Your task to perform on an android device: Open Google Maps Image 0: 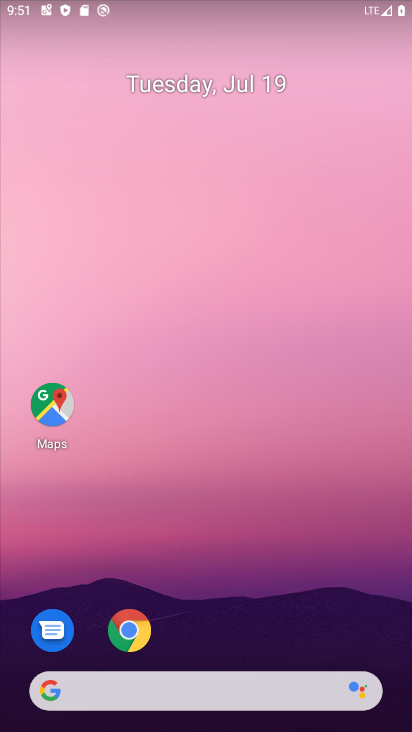
Step 0: click (54, 403)
Your task to perform on an android device: Open Google Maps Image 1: 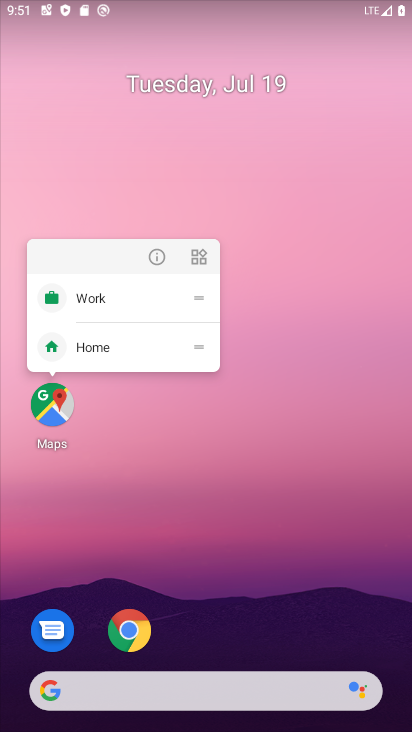
Step 1: click (54, 410)
Your task to perform on an android device: Open Google Maps Image 2: 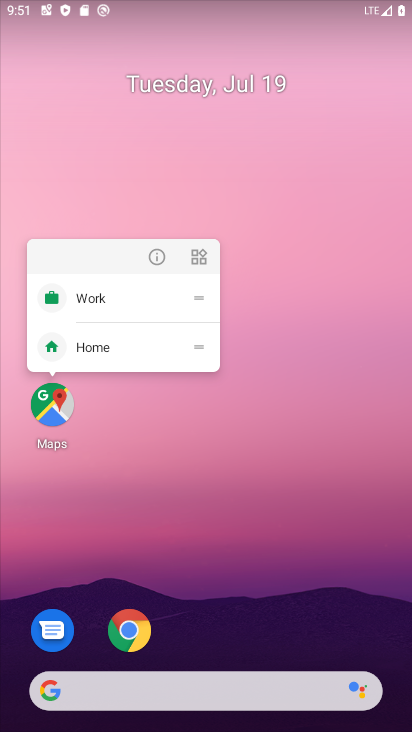
Step 2: click (54, 410)
Your task to perform on an android device: Open Google Maps Image 3: 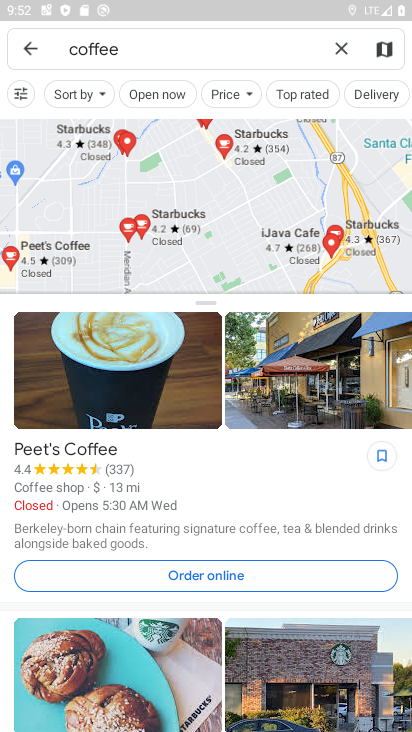
Step 3: task complete